Your task to perform on an android device: Go to location settings Image 0: 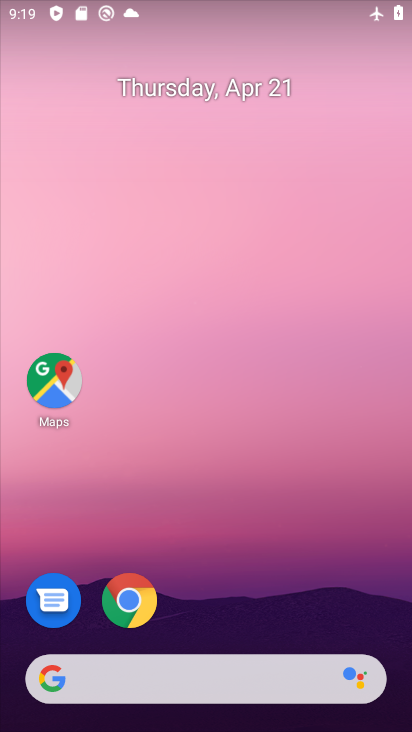
Step 0: drag from (256, 549) to (259, 123)
Your task to perform on an android device: Go to location settings Image 1: 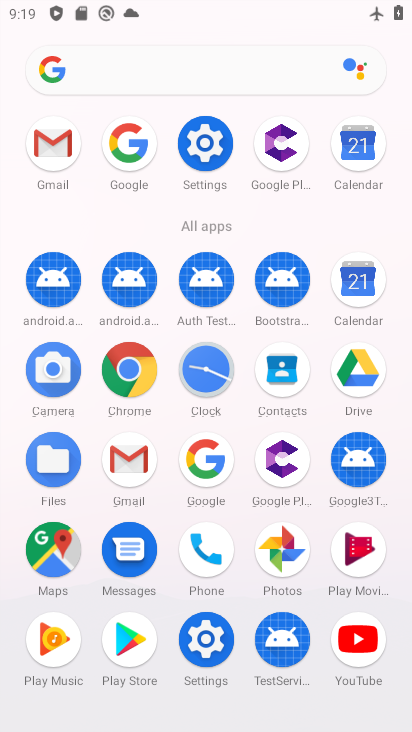
Step 1: click (204, 145)
Your task to perform on an android device: Go to location settings Image 2: 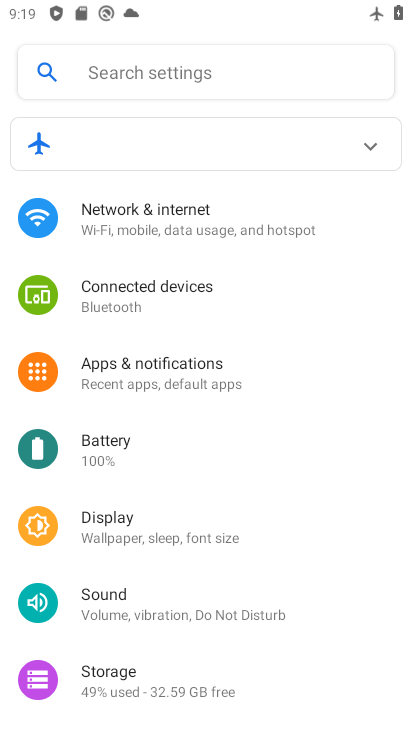
Step 2: drag from (231, 588) to (225, 174)
Your task to perform on an android device: Go to location settings Image 3: 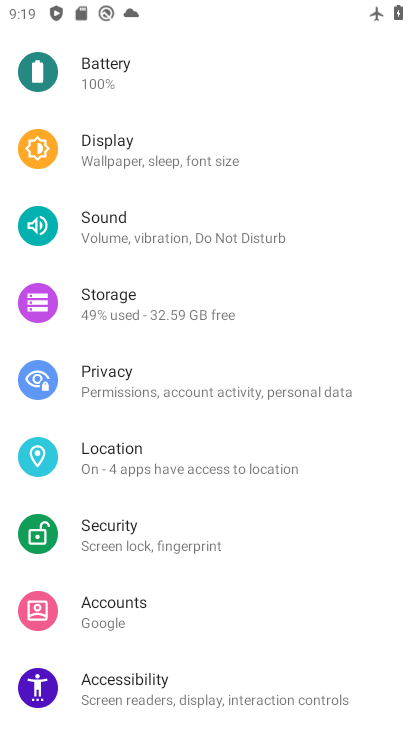
Step 3: click (140, 450)
Your task to perform on an android device: Go to location settings Image 4: 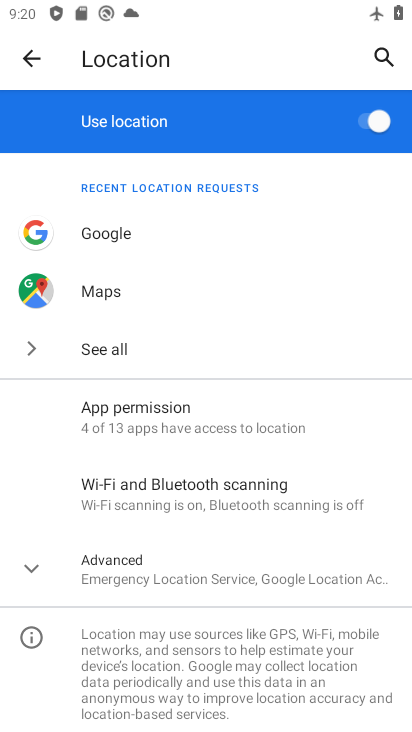
Step 4: task complete